Your task to perform on an android device: change the clock style Image 0: 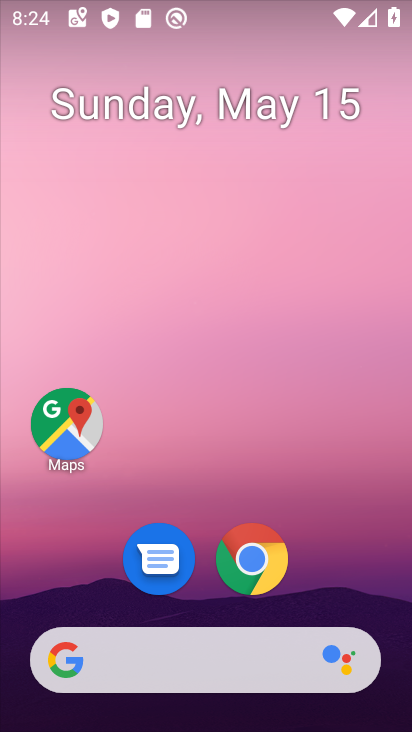
Step 0: drag from (365, 563) to (280, 2)
Your task to perform on an android device: change the clock style Image 1: 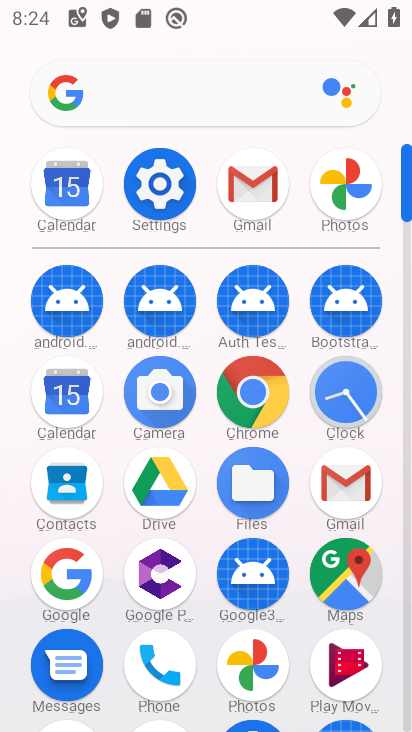
Step 1: click (357, 380)
Your task to perform on an android device: change the clock style Image 2: 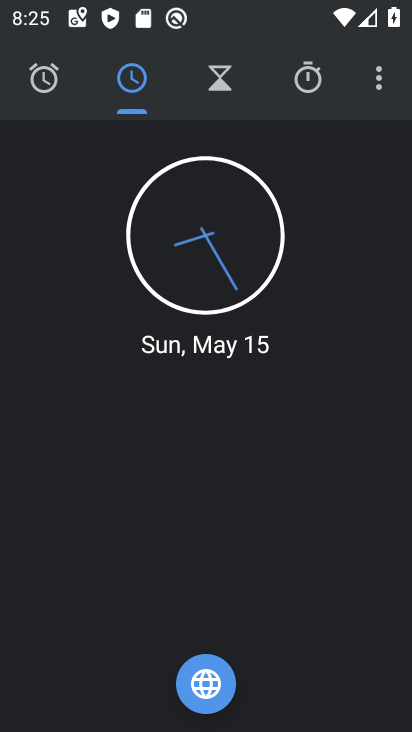
Step 2: click (388, 67)
Your task to perform on an android device: change the clock style Image 3: 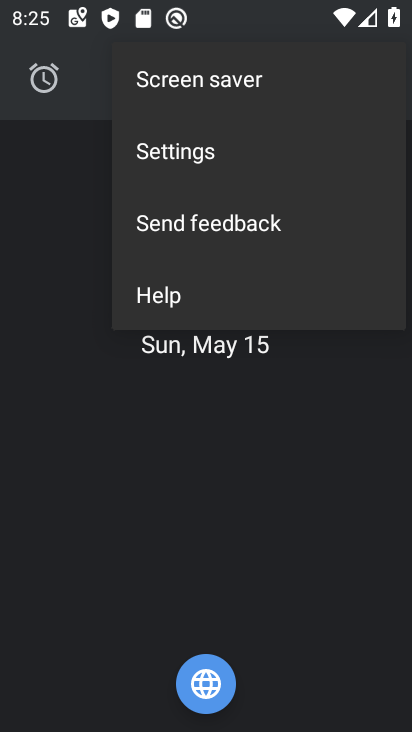
Step 3: click (204, 168)
Your task to perform on an android device: change the clock style Image 4: 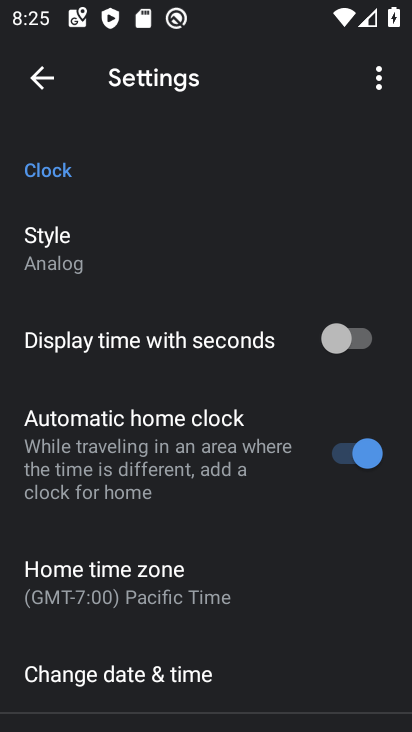
Step 4: click (215, 283)
Your task to perform on an android device: change the clock style Image 5: 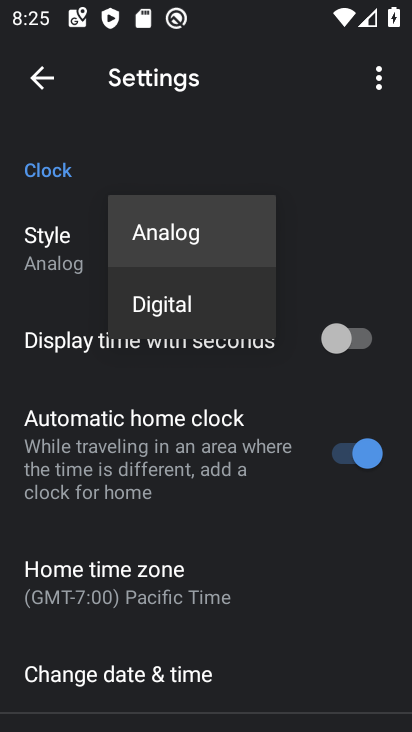
Step 5: click (214, 295)
Your task to perform on an android device: change the clock style Image 6: 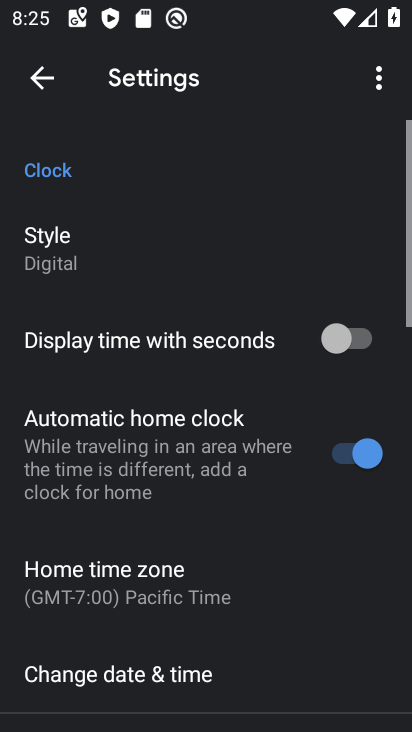
Step 6: task complete